Your task to perform on an android device: What's on my calendar today? Image 0: 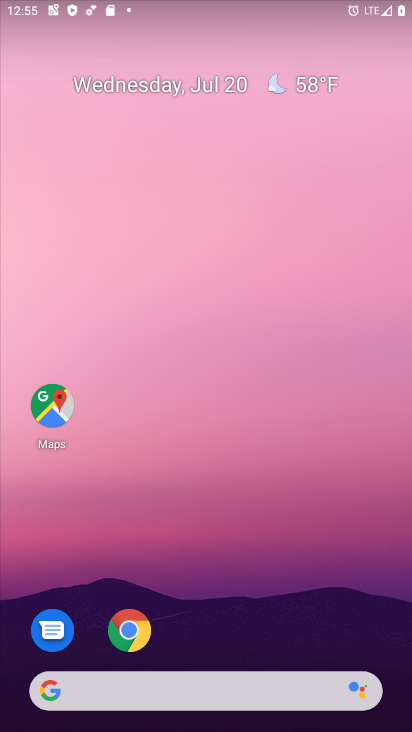
Step 0: drag from (227, 511) to (243, 123)
Your task to perform on an android device: What's on my calendar today? Image 1: 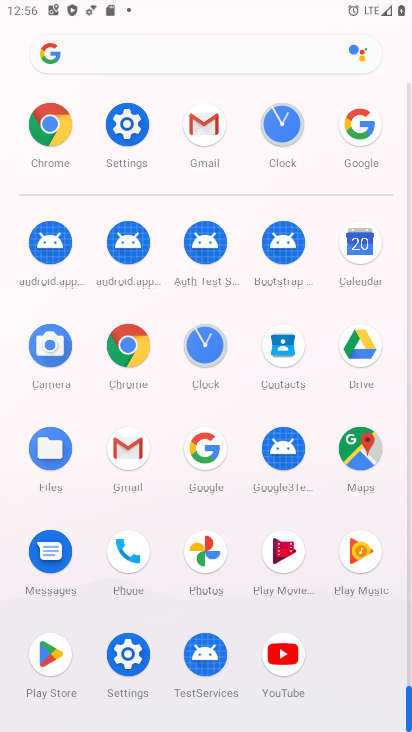
Step 1: click (358, 270)
Your task to perform on an android device: What's on my calendar today? Image 2: 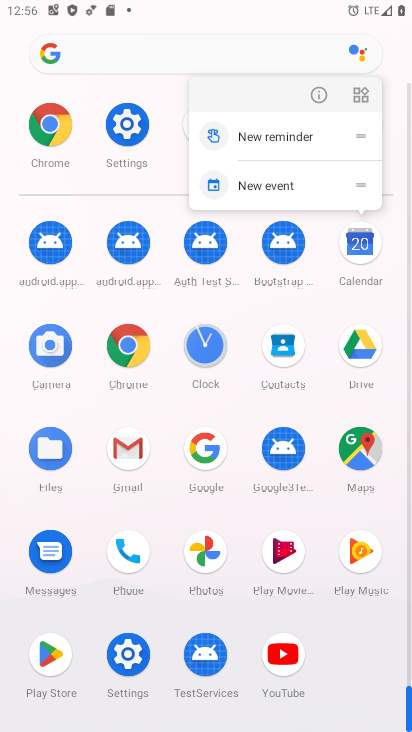
Step 2: click (356, 262)
Your task to perform on an android device: What's on my calendar today? Image 3: 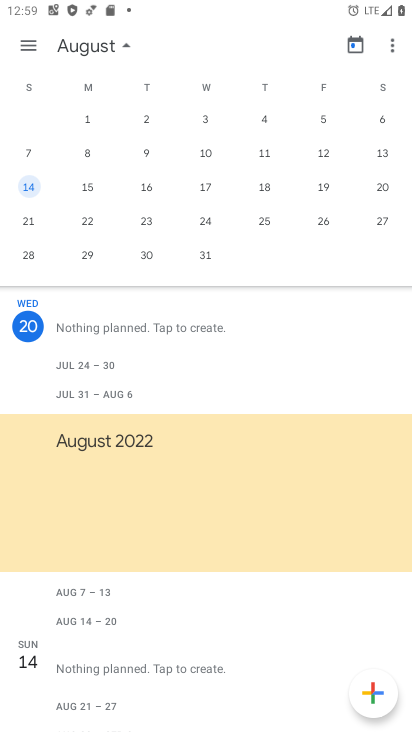
Step 3: press home button
Your task to perform on an android device: What's on my calendar today? Image 4: 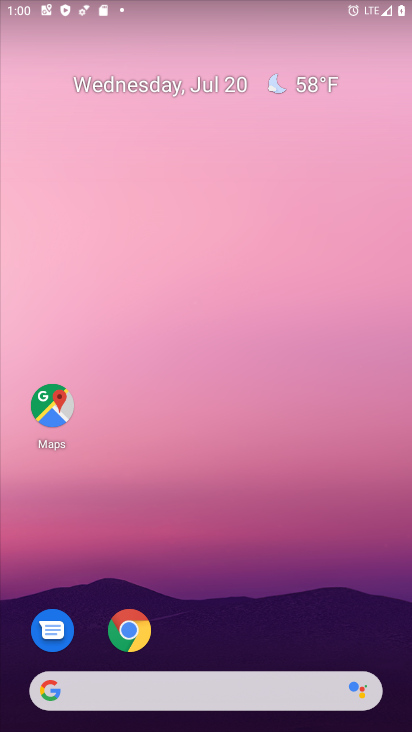
Step 4: drag from (215, 651) to (246, 125)
Your task to perform on an android device: What's on my calendar today? Image 5: 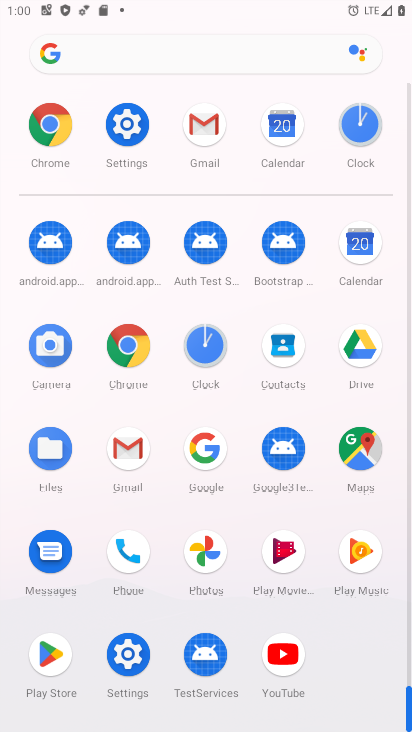
Step 5: click (366, 256)
Your task to perform on an android device: What's on my calendar today? Image 6: 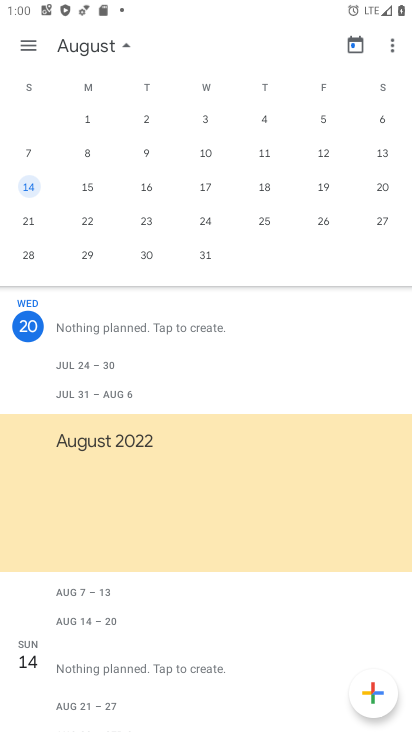
Step 6: drag from (42, 153) to (411, 145)
Your task to perform on an android device: What's on my calendar today? Image 7: 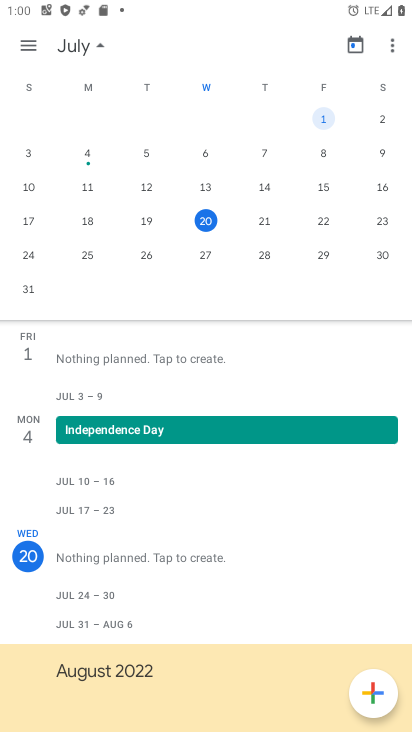
Step 7: click (202, 223)
Your task to perform on an android device: What's on my calendar today? Image 8: 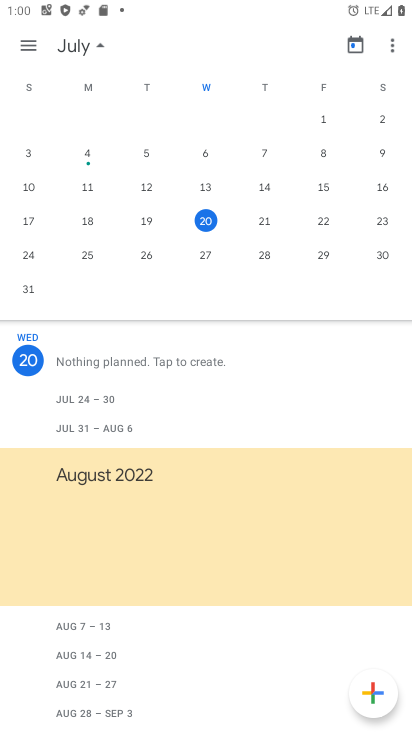
Step 8: task complete